Your task to perform on an android device: Open the web browser Image 0: 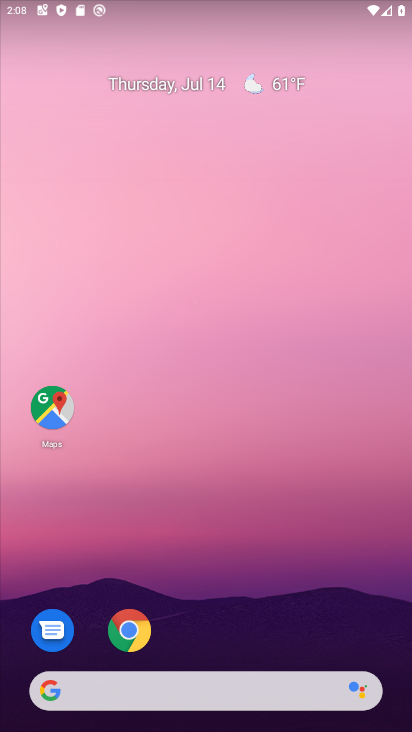
Step 0: click (127, 630)
Your task to perform on an android device: Open the web browser Image 1: 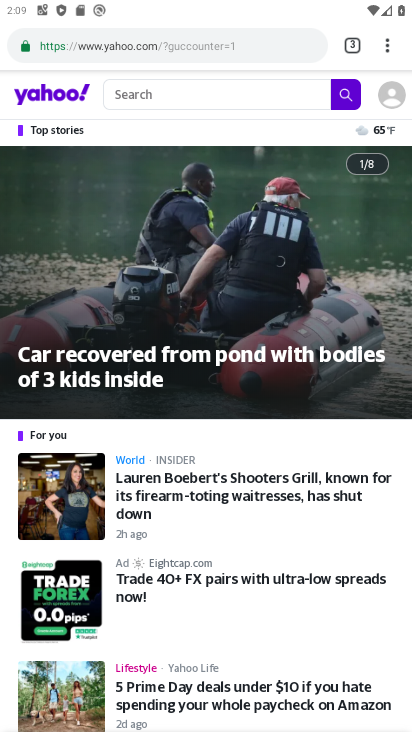
Step 1: task complete